Your task to perform on an android device: Find coffee shops on Maps Image 0: 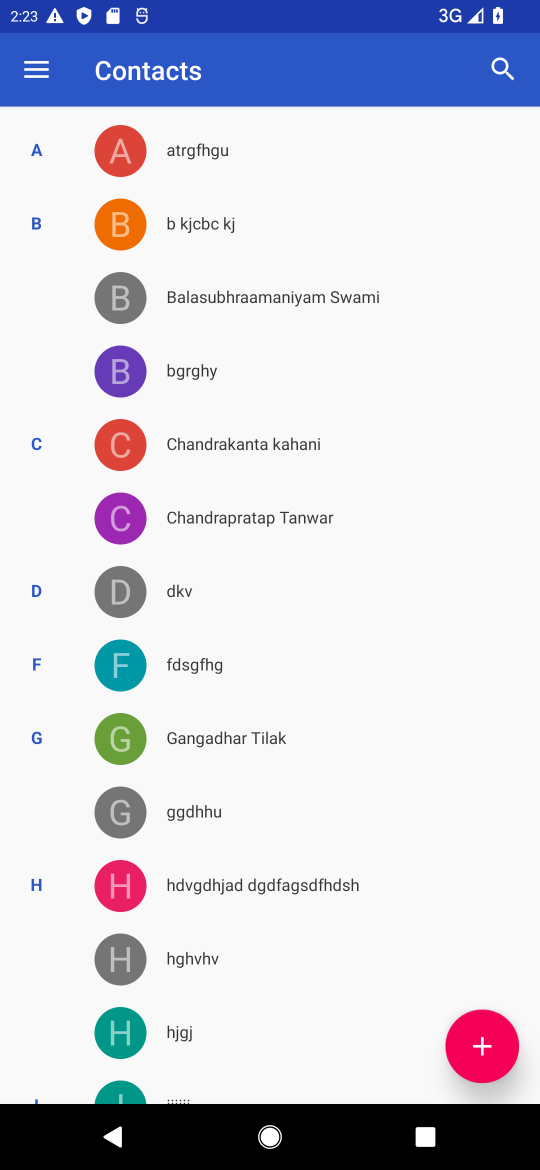
Step 0: press home button
Your task to perform on an android device: Find coffee shops on Maps Image 1: 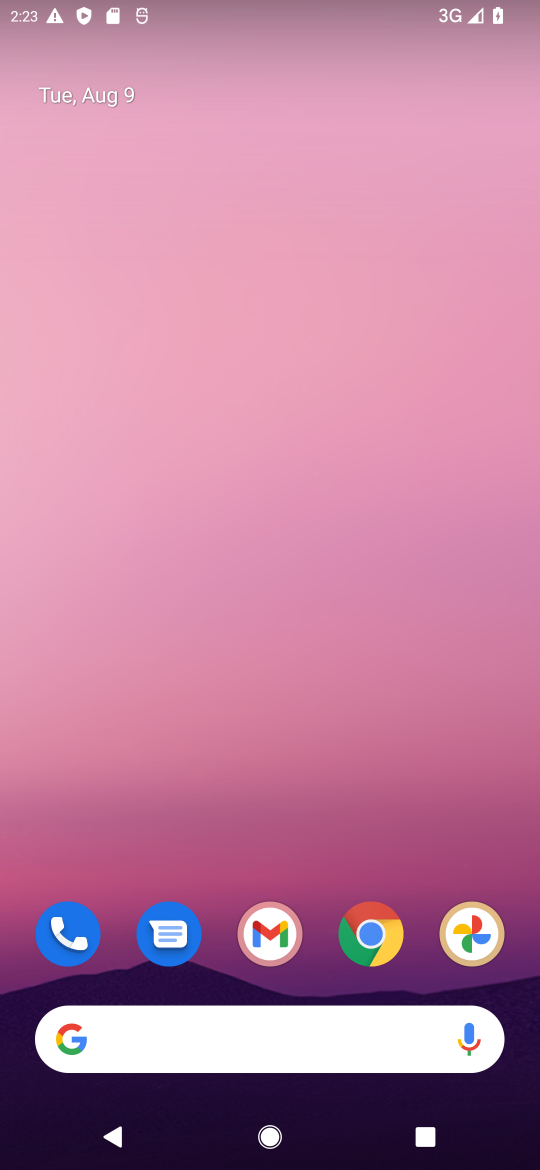
Step 1: drag from (312, 993) to (431, 99)
Your task to perform on an android device: Find coffee shops on Maps Image 2: 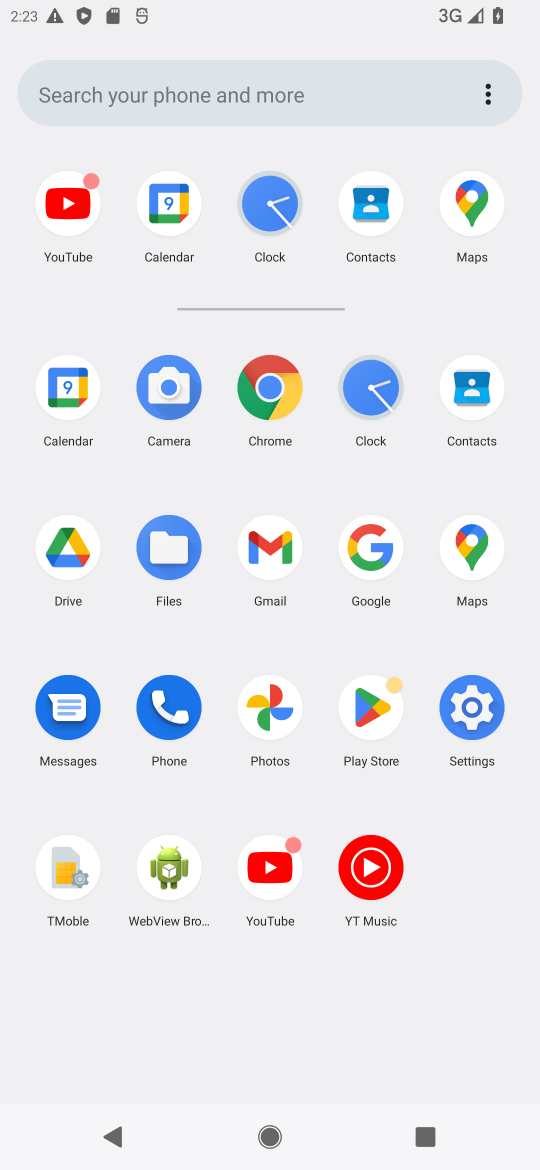
Step 2: click (494, 596)
Your task to perform on an android device: Find coffee shops on Maps Image 3: 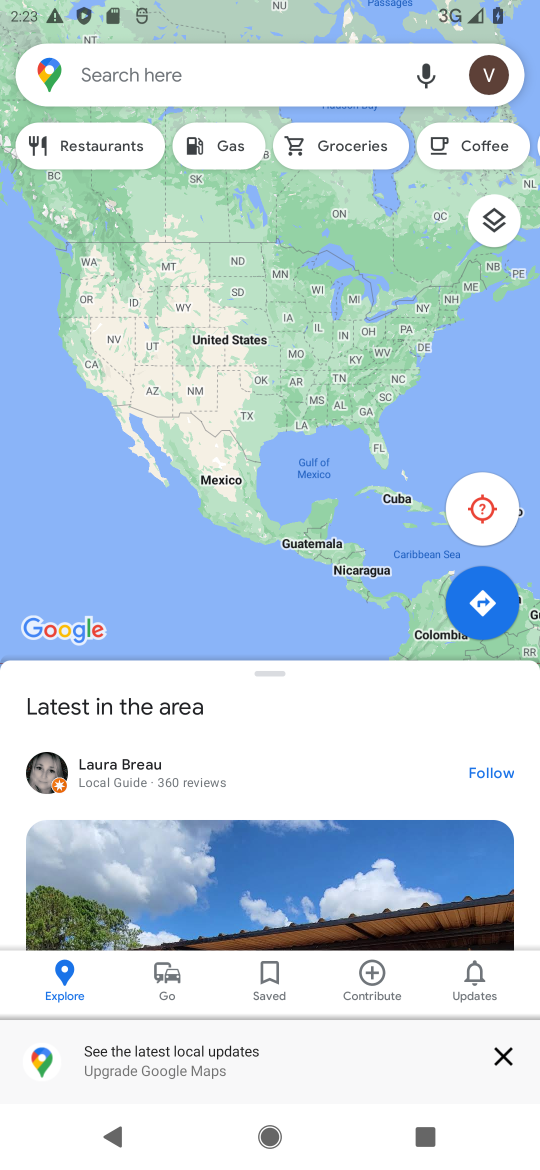
Step 3: click (182, 87)
Your task to perform on an android device: Find coffee shops on Maps Image 4: 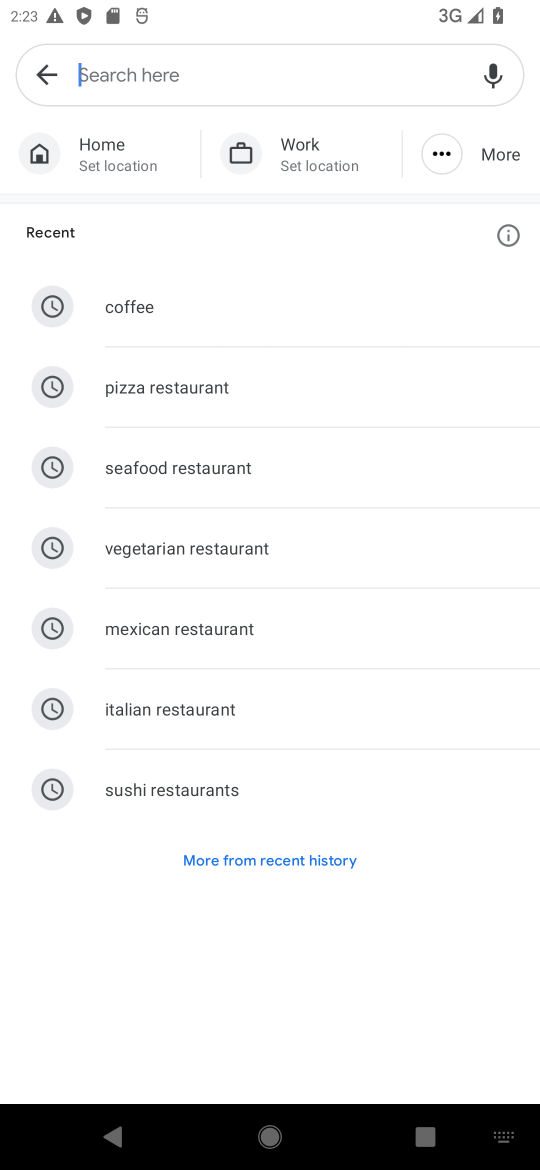
Step 4: click (185, 308)
Your task to perform on an android device: Find coffee shops on Maps Image 5: 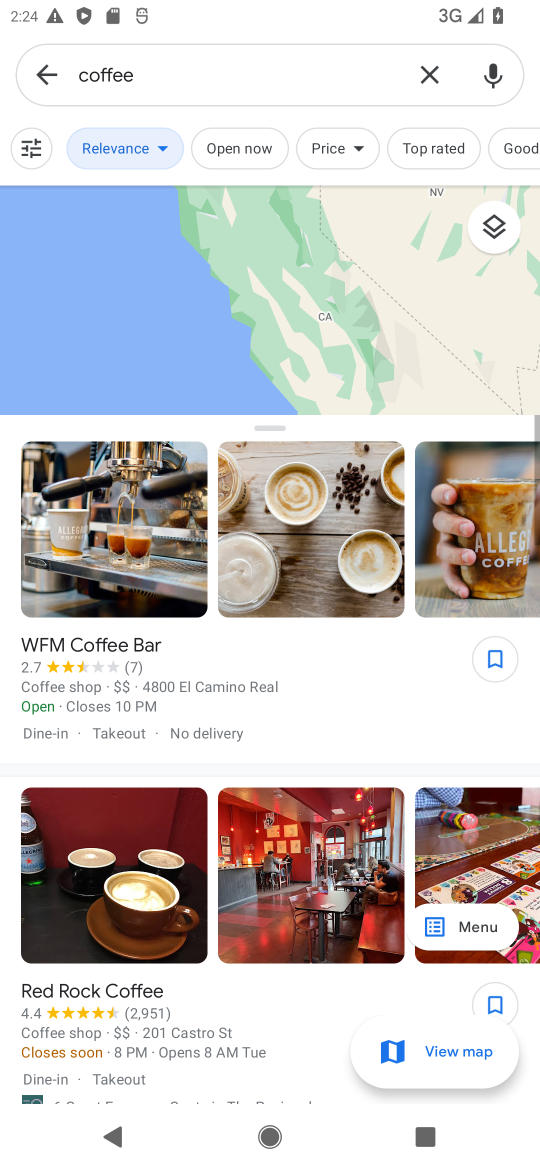
Step 5: task complete